Your task to perform on an android device: open device folders in google photos Image 0: 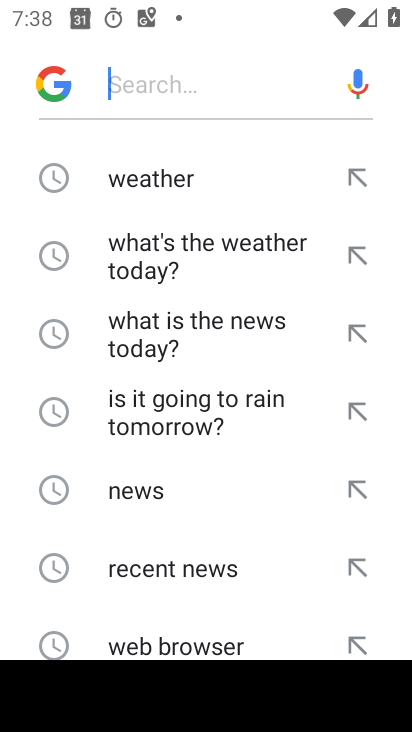
Step 0: press home button
Your task to perform on an android device: open device folders in google photos Image 1: 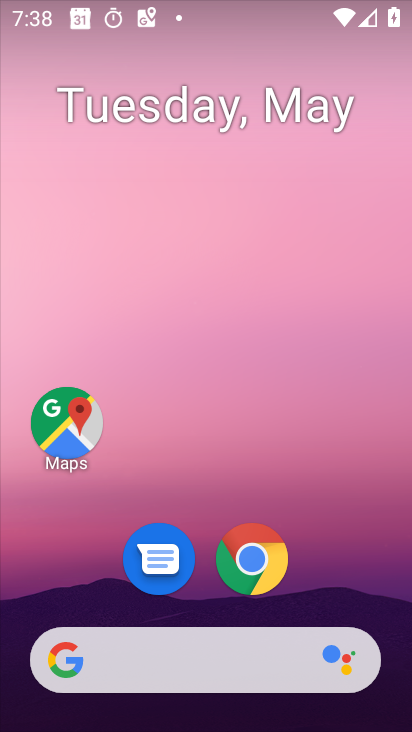
Step 1: drag from (399, 622) to (290, 40)
Your task to perform on an android device: open device folders in google photos Image 2: 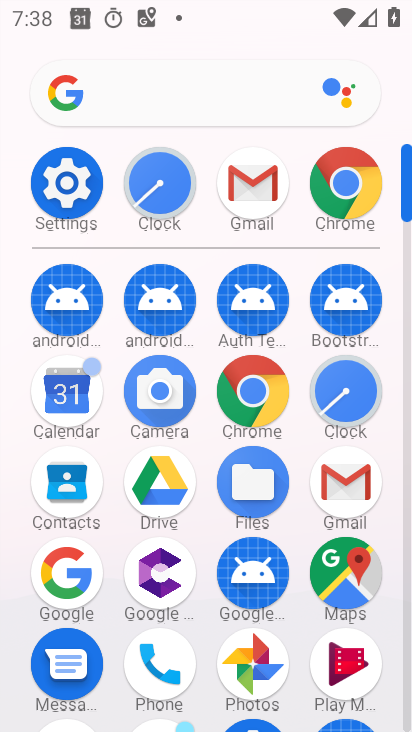
Step 2: click (259, 671)
Your task to perform on an android device: open device folders in google photos Image 3: 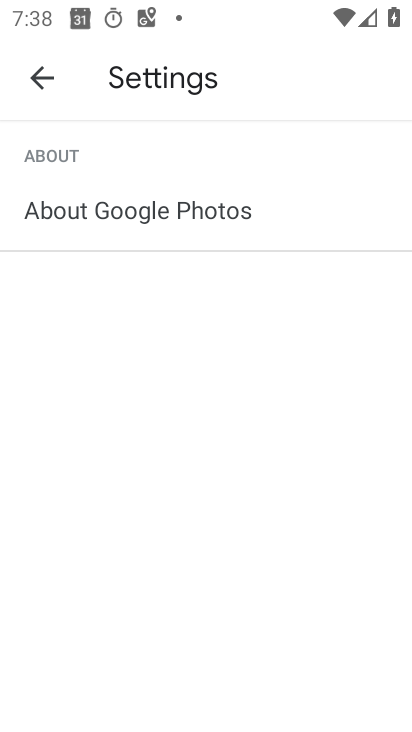
Step 3: press back button
Your task to perform on an android device: open device folders in google photos Image 4: 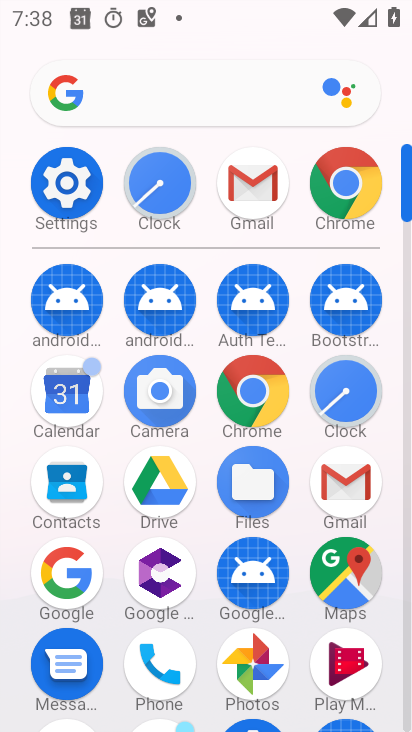
Step 4: click (269, 661)
Your task to perform on an android device: open device folders in google photos Image 5: 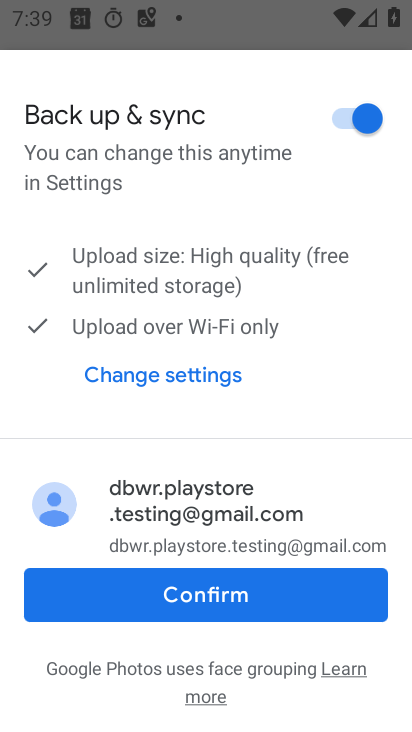
Step 5: click (215, 591)
Your task to perform on an android device: open device folders in google photos Image 6: 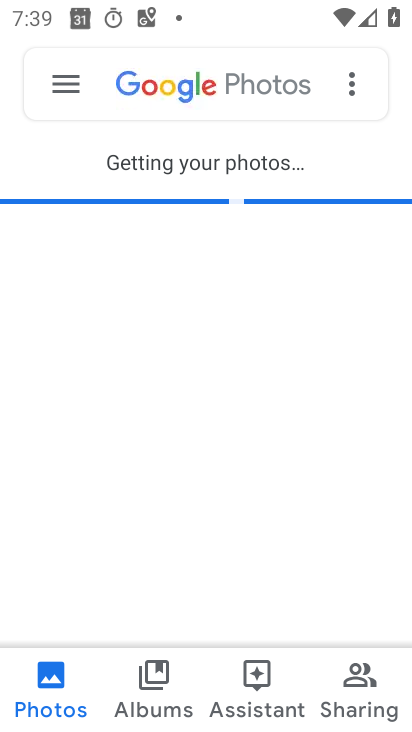
Step 6: click (31, 73)
Your task to perform on an android device: open device folders in google photos Image 7: 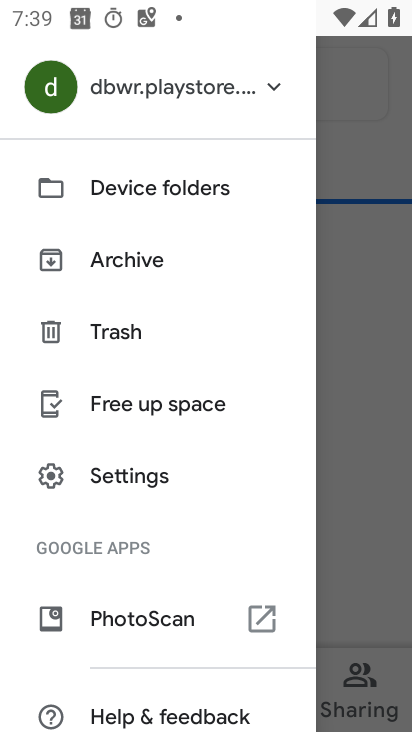
Step 7: click (173, 205)
Your task to perform on an android device: open device folders in google photos Image 8: 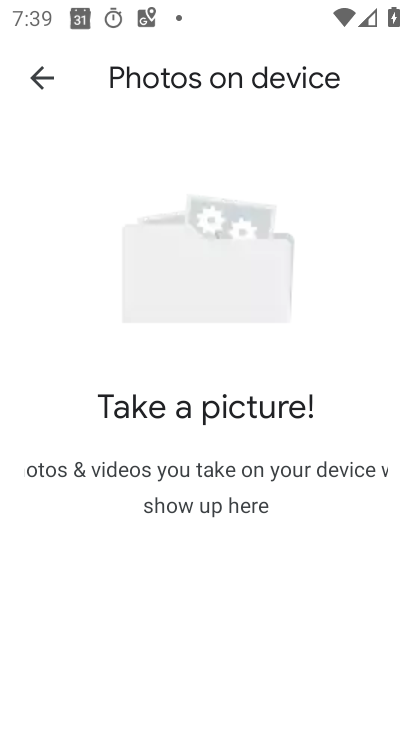
Step 8: task complete